Your task to perform on an android device: Clear the shopping cart on amazon. Search for razer deathadder on amazon, select the first entry, add it to the cart, then select checkout. Image 0: 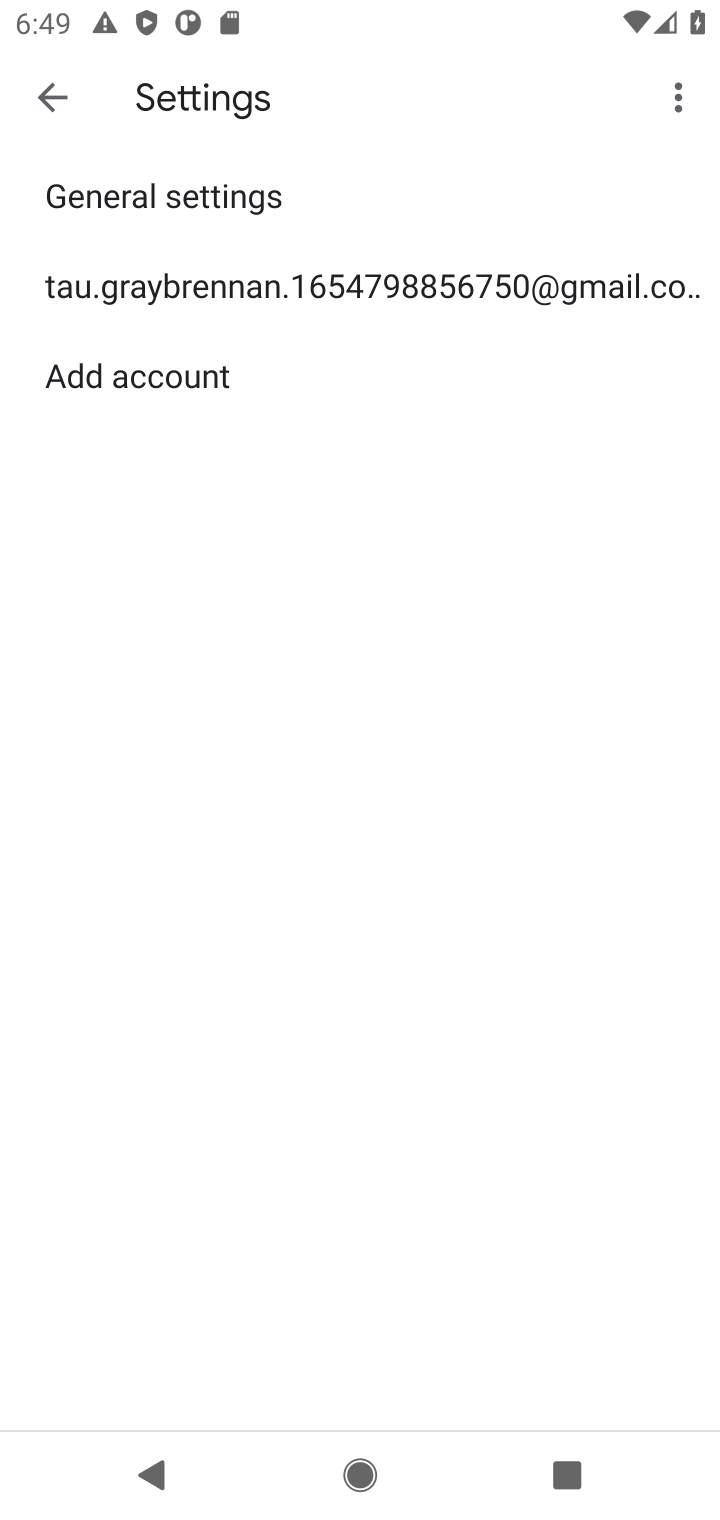
Step 0: press home button
Your task to perform on an android device: Clear the shopping cart on amazon. Search for razer deathadder on amazon, select the first entry, add it to the cart, then select checkout. Image 1: 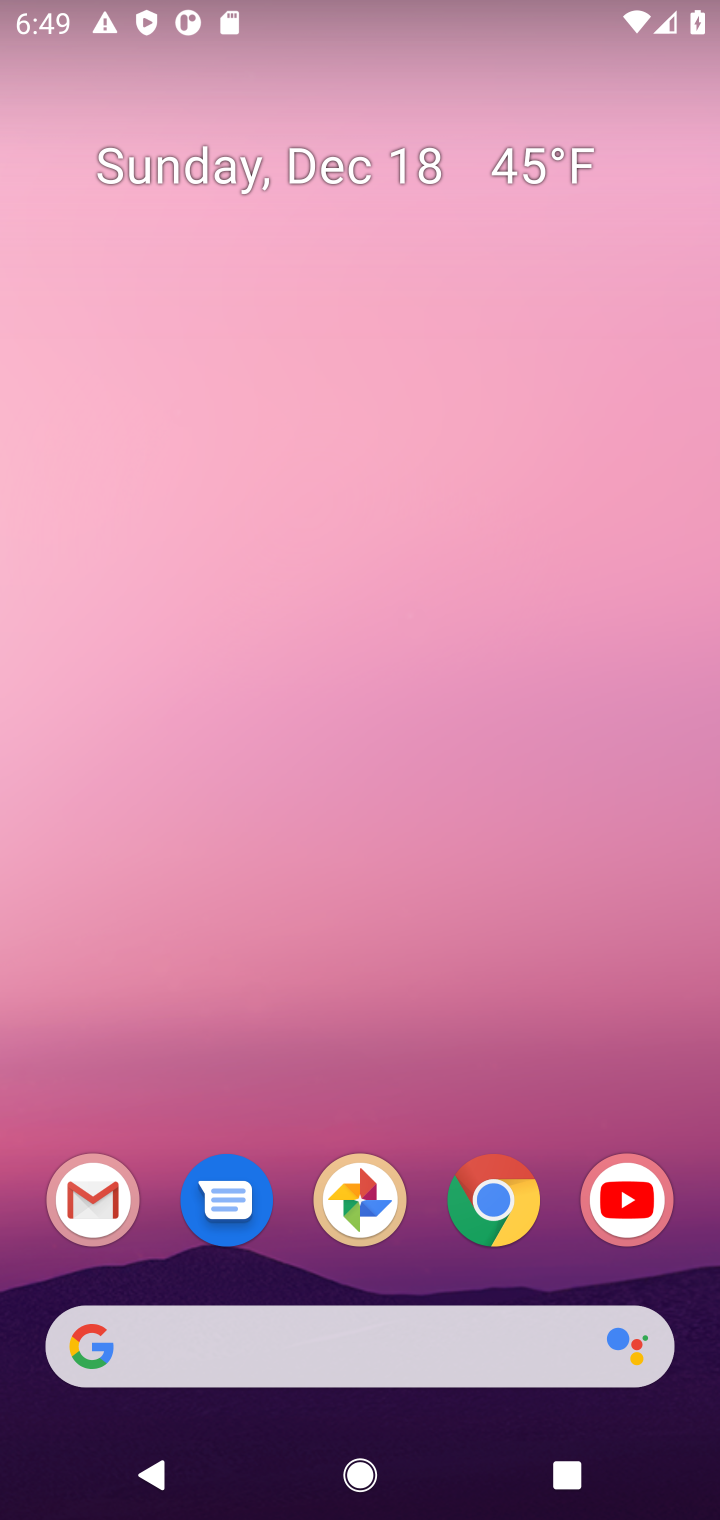
Step 1: click (492, 1218)
Your task to perform on an android device: Clear the shopping cart on amazon. Search for razer deathadder on amazon, select the first entry, add it to the cart, then select checkout. Image 2: 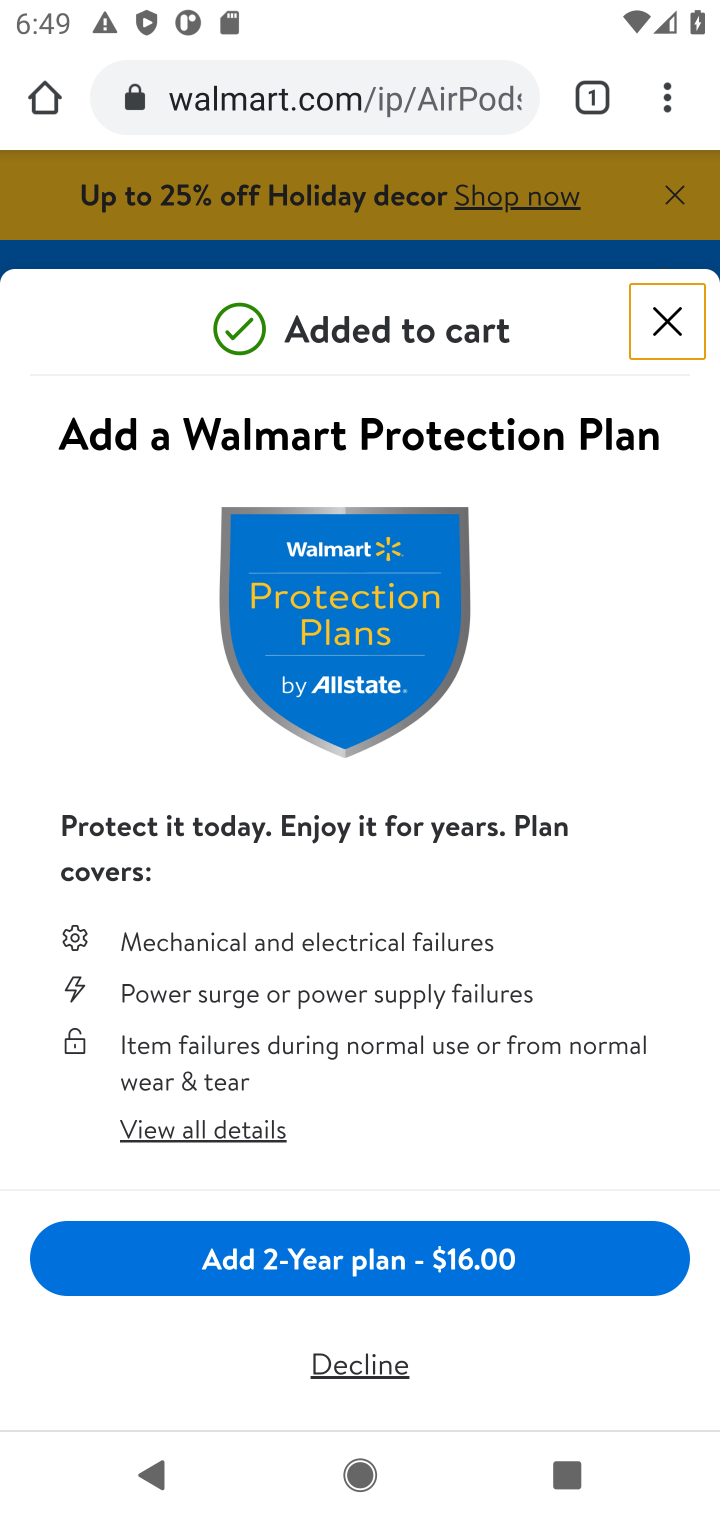
Step 2: click (238, 109)
Your task to perform on an android device: Clear the shopping cart on amazon. Search for razer deathadder on amazon, select the first entry, add it to the cart, then select checkout. Image 3: 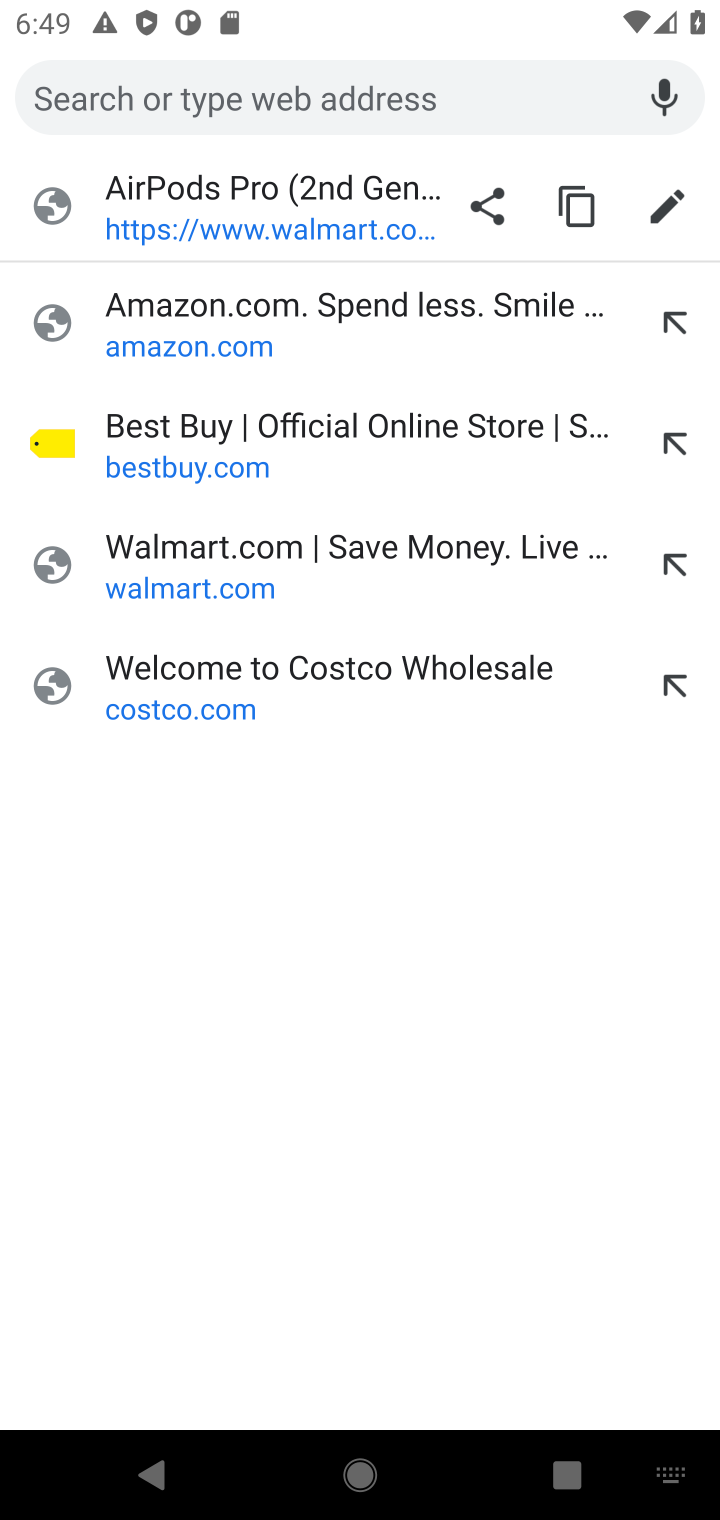
Step 3: click (169, 350)
Your task to perform on an android device: Clear the shopping cart on amazon. Search for razer deathadder on amazon, select the first entry, add it to the cart, then select checkout. Image 4: 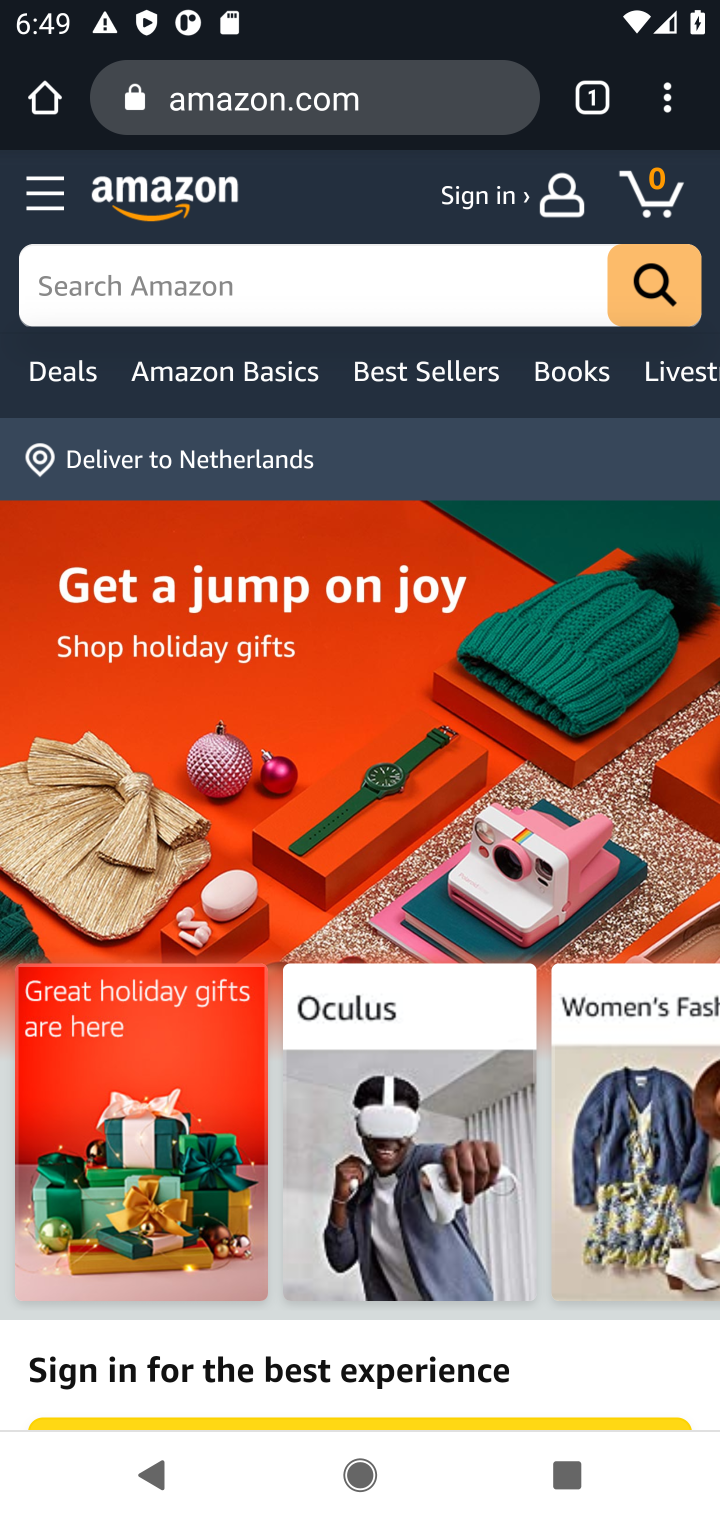
Step 4: click (641, 198)
Your task to perform on an android device: Clear the shopping cart on amazon. Search for razer deathadder on amazon, select the first entry, add it to the cart, then select checkout. Image 5: 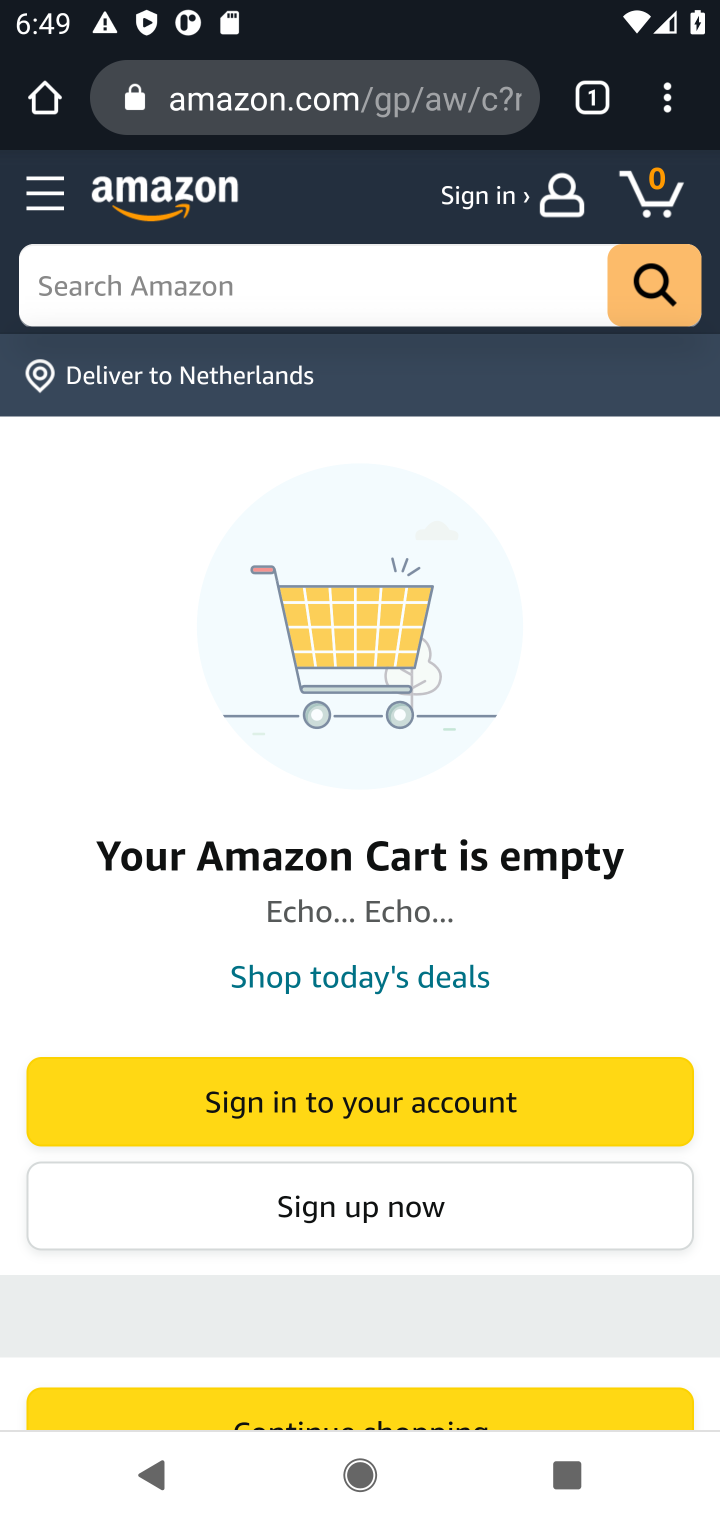
Step 5: click (201, 307)
Your task to perform on an android device: Clear the shopping cart on amazon. Search for razer deathadder on amazon, select the first entry, add it to the cart, then select checkout. Image 6: 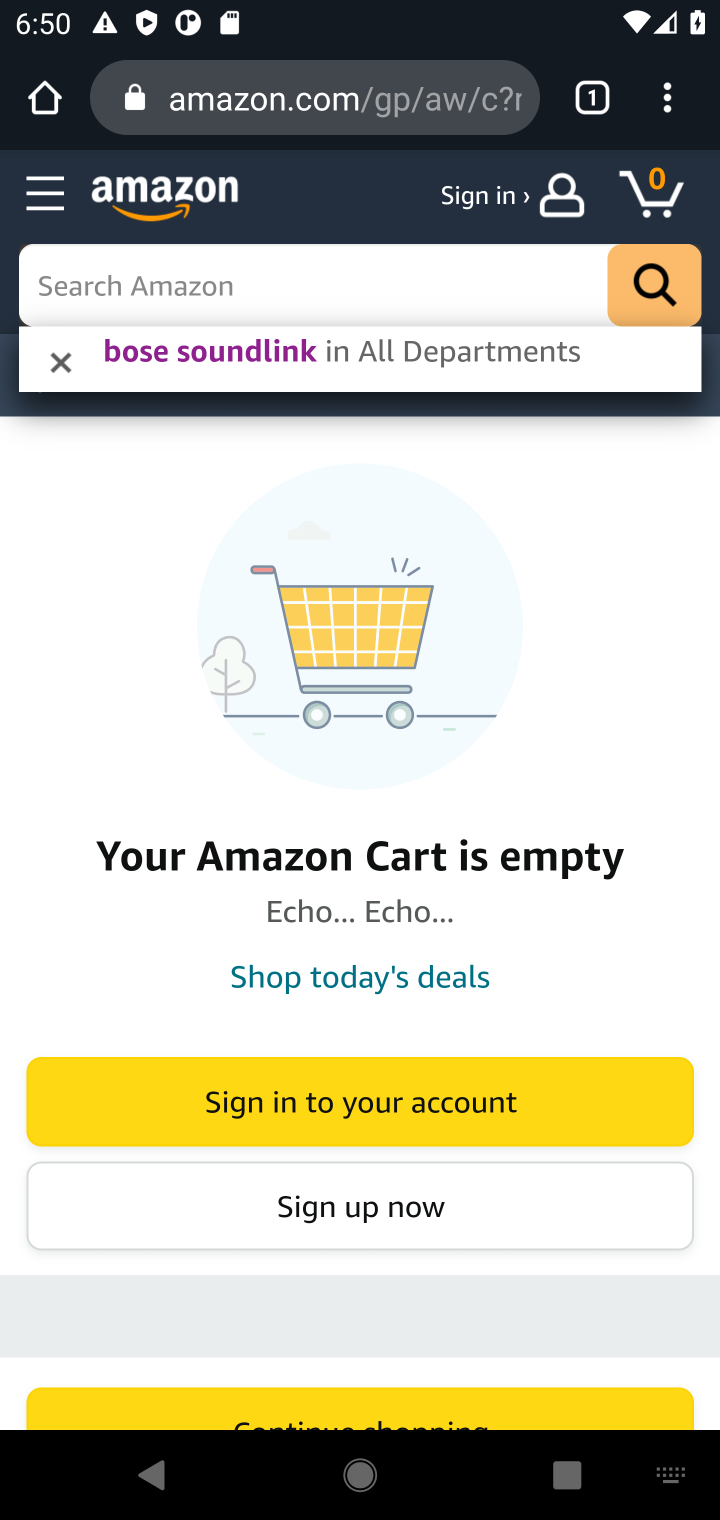
Step 6: type "razer deathadder"
Your task to perform on an android device: Clear the shopping cart on amazon. Search for razer deathadder on amazon, select the first entry, add it to the cart, then select checkout. Image 7: 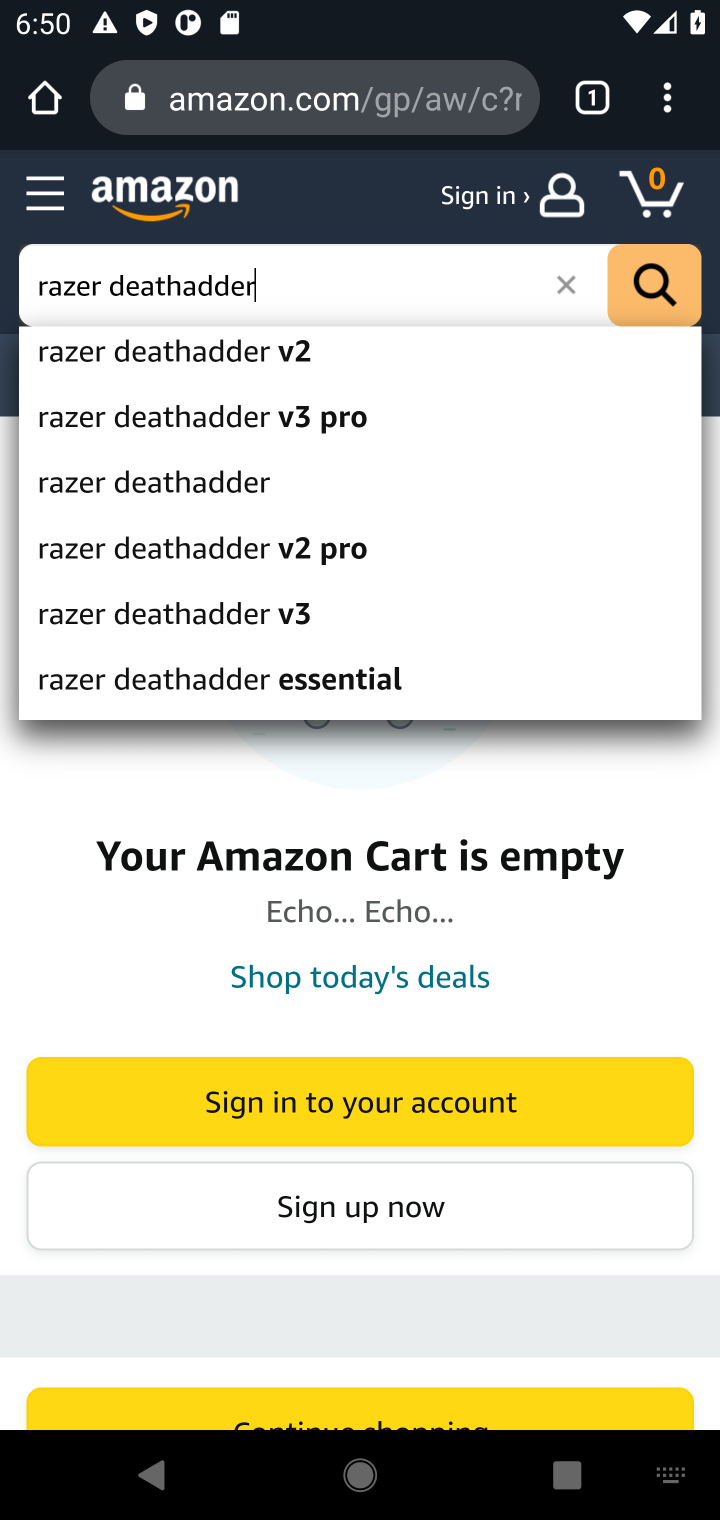
Step 7: click (221, 489)
Your task to perform on an android device: Clear the shopping cart on amazon. Search for razer deathadder on amazon, select the first entry, add it to the cart, then select checkout. Image 8: 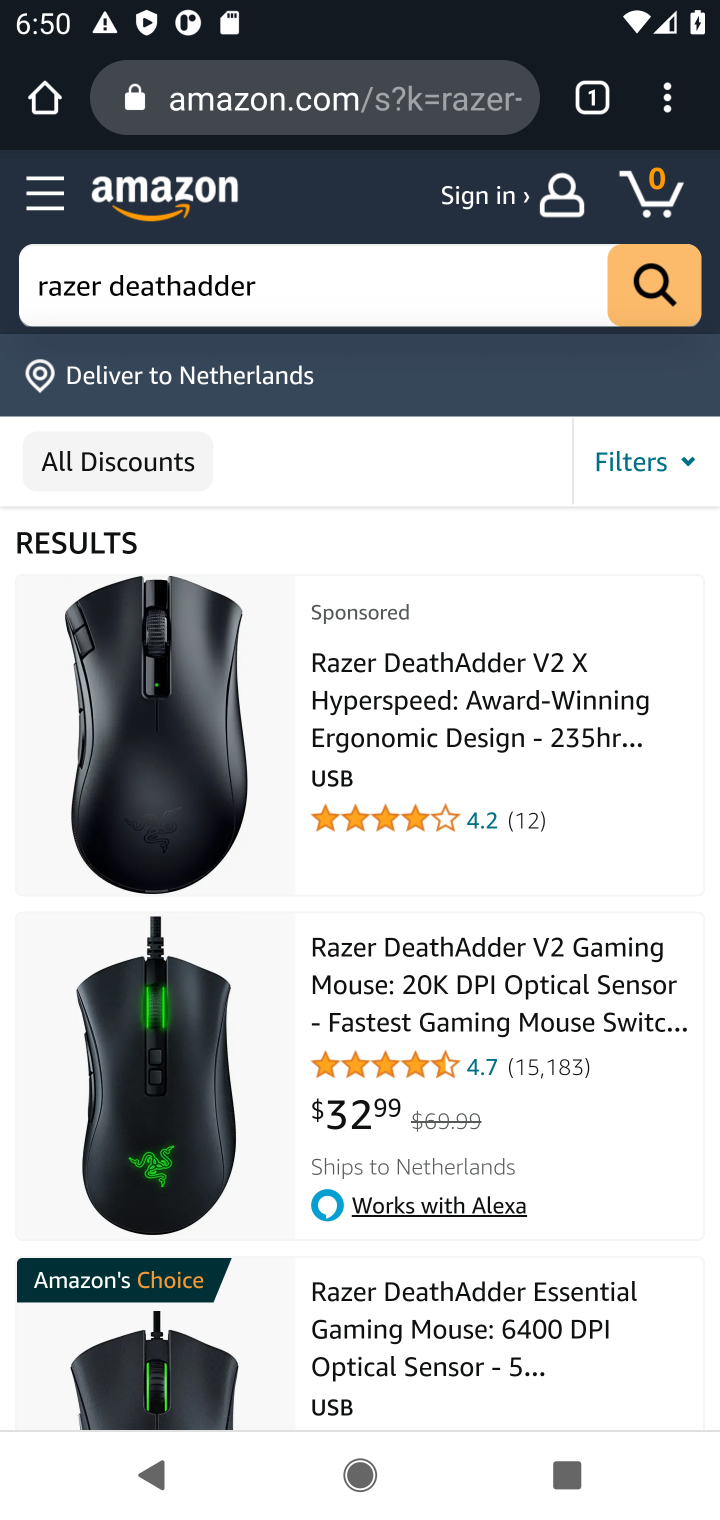
Step 8: click (462, 731)
Your task to perform on an android device: Clear the shopping cart on amazon. Search for razer deathadder on amazon, select the first entry, add it to the cart, then select checkout. Image 9: 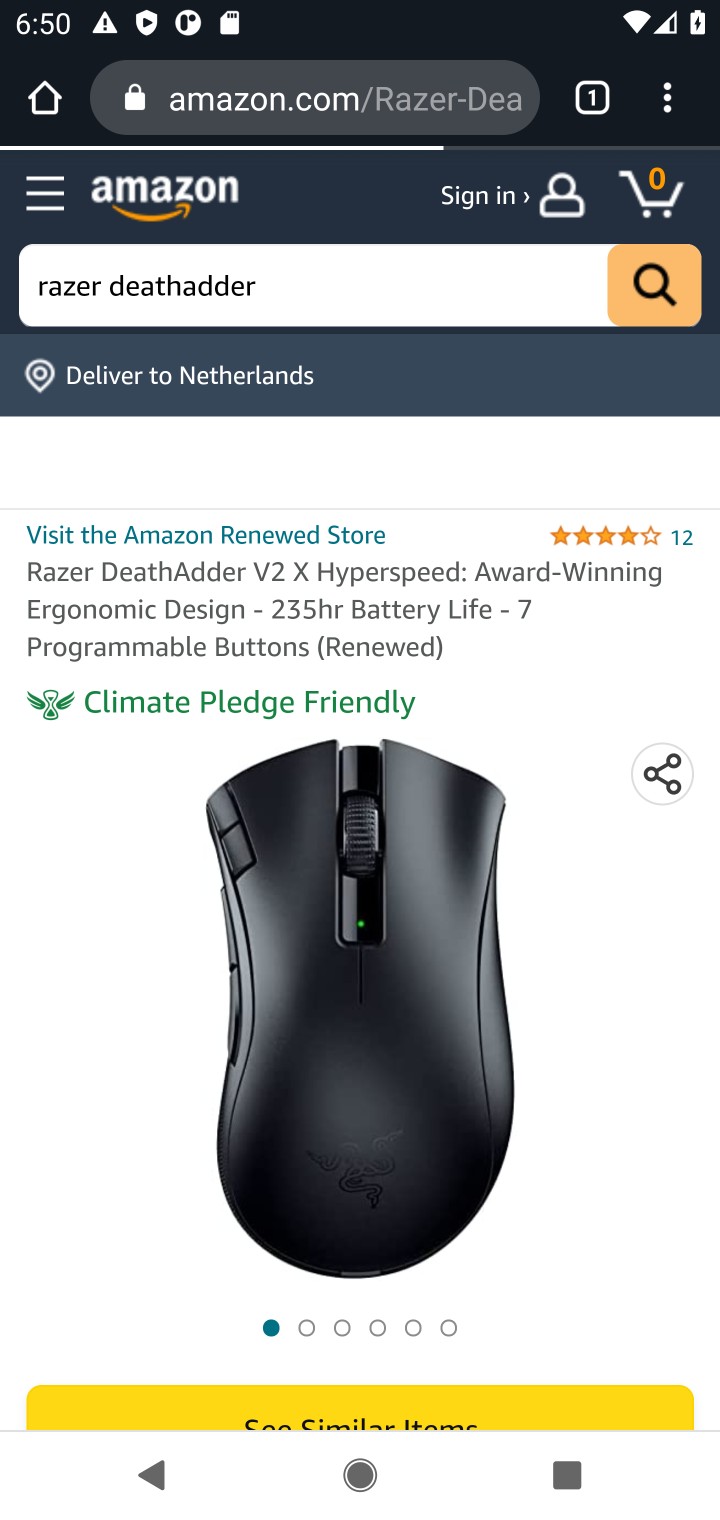
Step 9: task complete